Your task to perform on an android device: What's on my calendar tomorrow? Image 0: 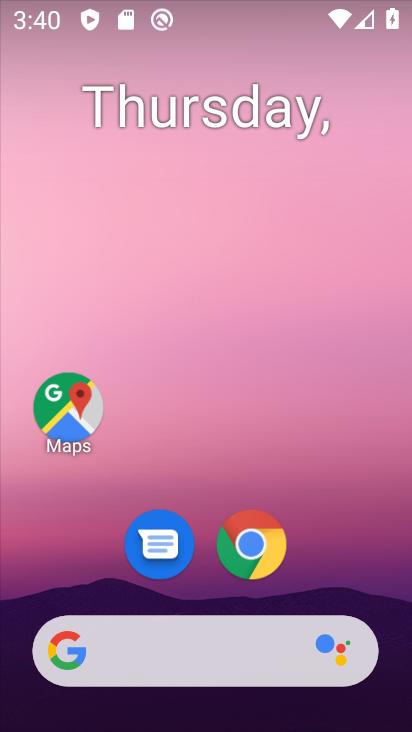
Step 0: click (371, 407)
Your task to perform on an android device: What's on my calendar tomorrow? Image 1: 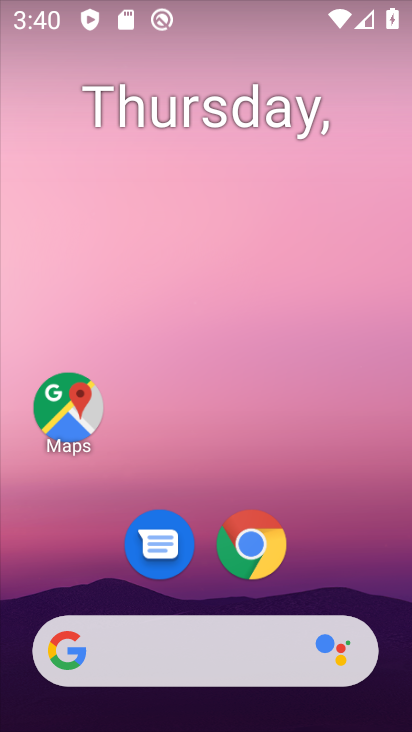
Step 1: drag from (364, 586) to (66, 2)
Your task to perform on an android device: What's on my calendar tomorrow? Image 2: 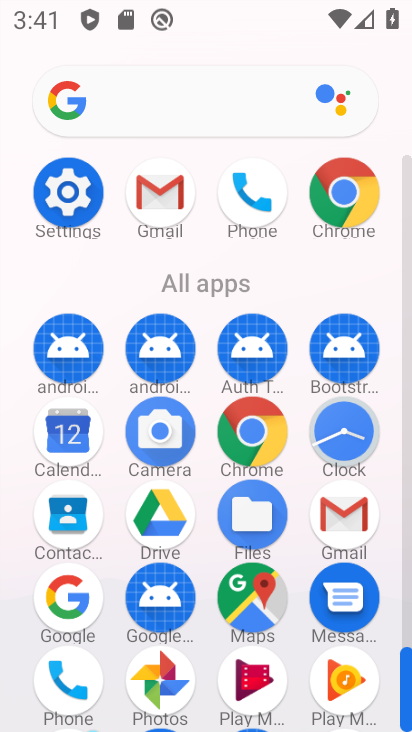
Step 2: click (70, 445)
Your task to perform on an android device: What's on my calendar tomorrow? Image 3: 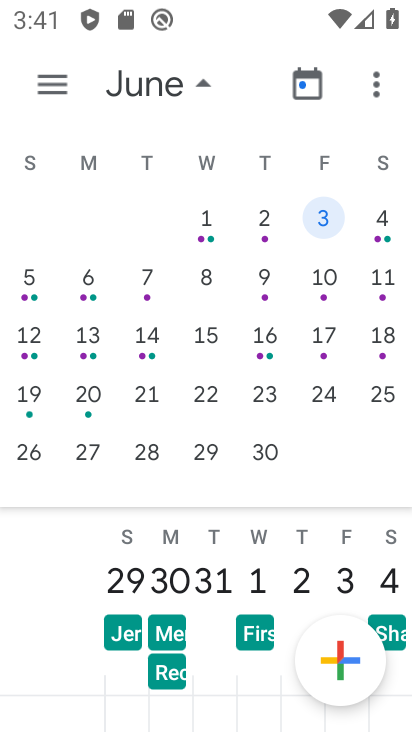
Step 3: click (69, 81)
Your task to perform on an android device: What's on my calendar tomorrow? Image 4: 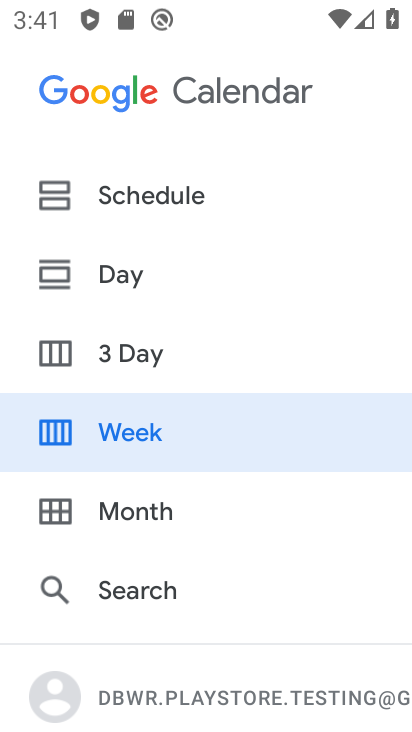
Step 4: click (156, 343)
Your task to perform on an android device: What's on my calendar tomorrow? Image 5: 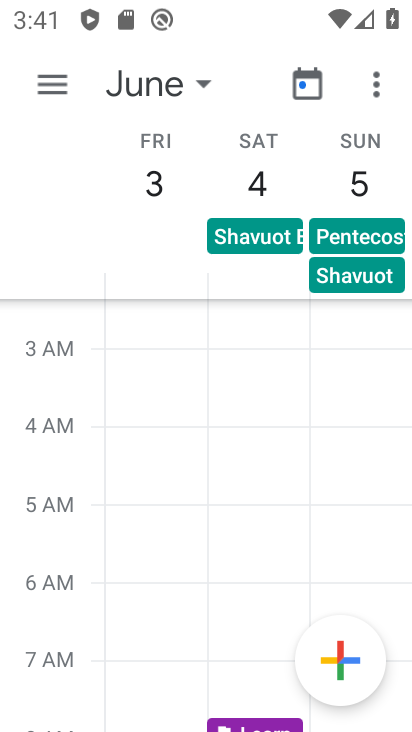
Step 5: drag from (115, 175) to (386, 182)
Your task to perform on an android device: What's on my calendar tomorrow? Image 6: 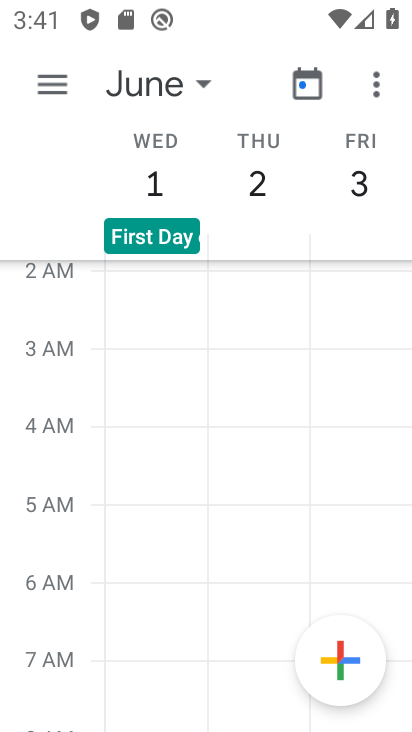
Step 6: click (144, 81)
Your task to perform on an android device: What's on my calendar tomorrow? Image 7: 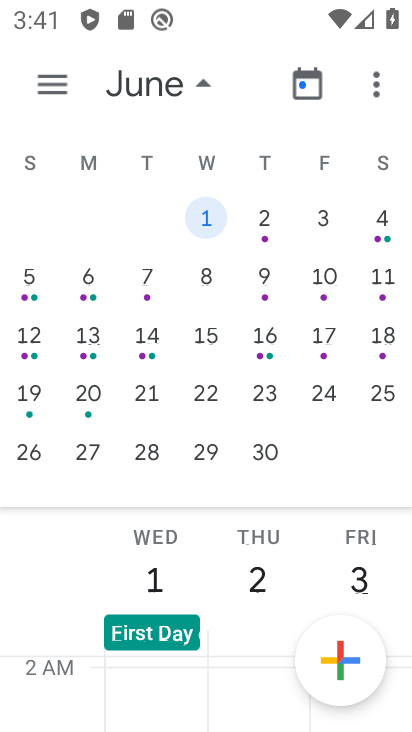
Step 7: drag from (183, 231) to (361, 278)
Your task to perform on an android device: What's on my calendar tomorrow? Image 8: 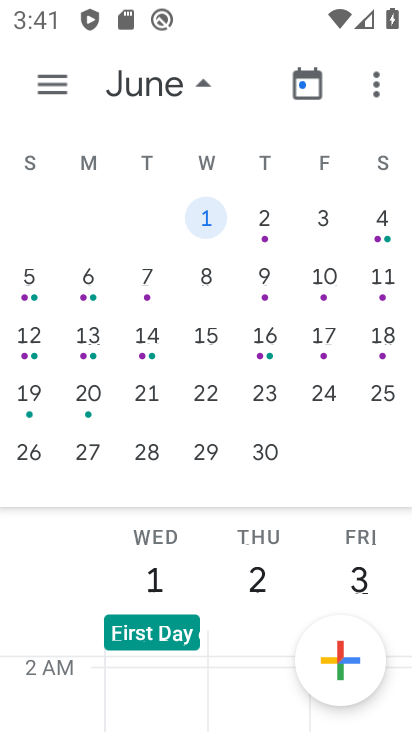
Step 8: click (87, 336)
Your task to perform on an android device: What's on my calendar tomorrow? Image 9: 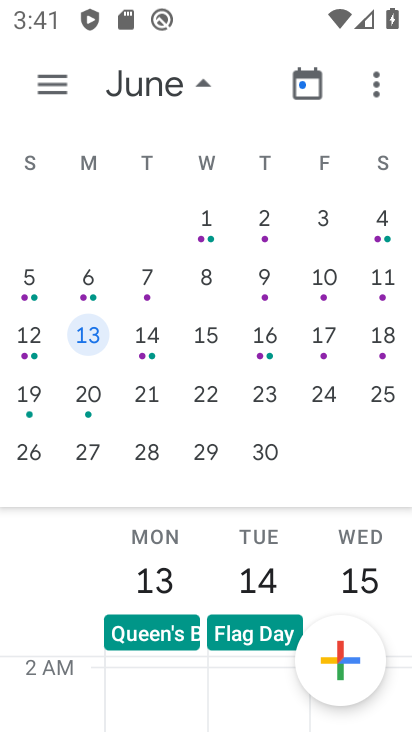
Step 9: drag from (102, 178) to (400, 243)
Your task to perform on an android device: What's on my calendar tomorrow? Image 10: 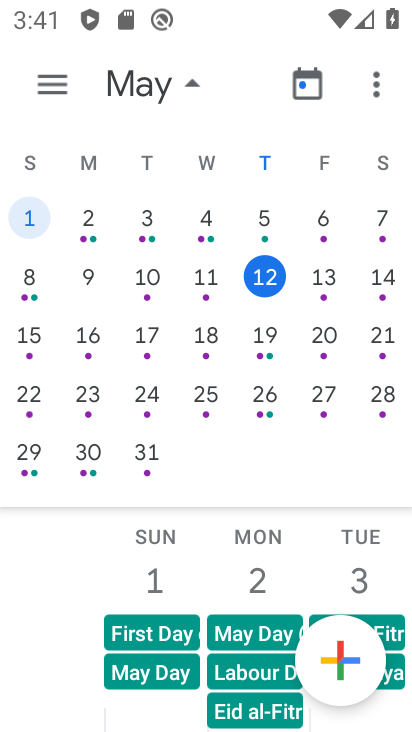
Step 10: click (333, 269)
Your task to perform on an android device: What's on my calendar tomorrow? Image 11: 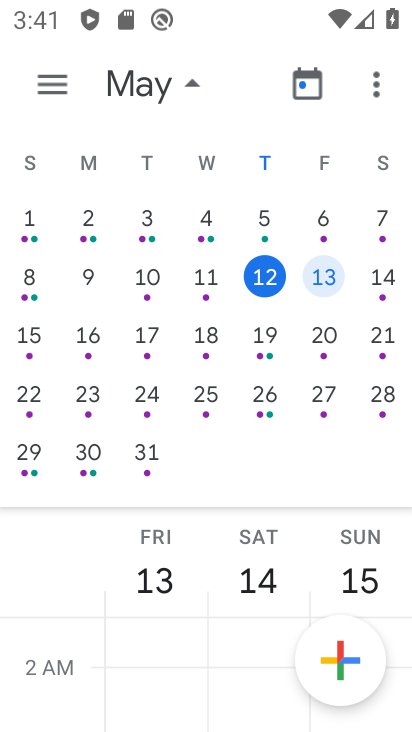
Step 11: click (57, 65)
Your task to perform on an android device: What's on my calendar tomorrow? Image 12: 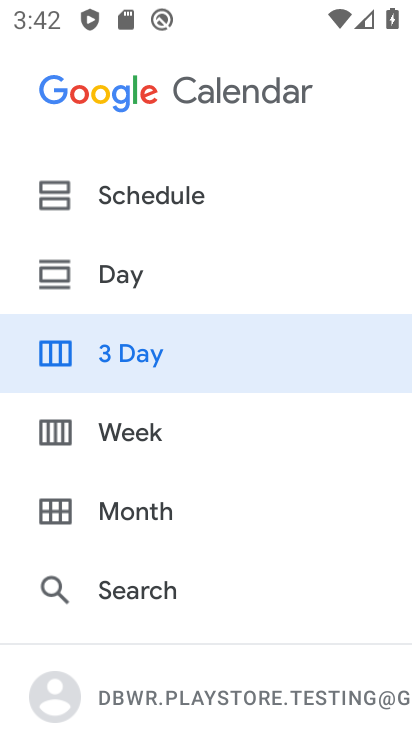
Step 12: click (141, 207)
Your task to perform on an android device: What's on my calendar tomorrow? Image 13: 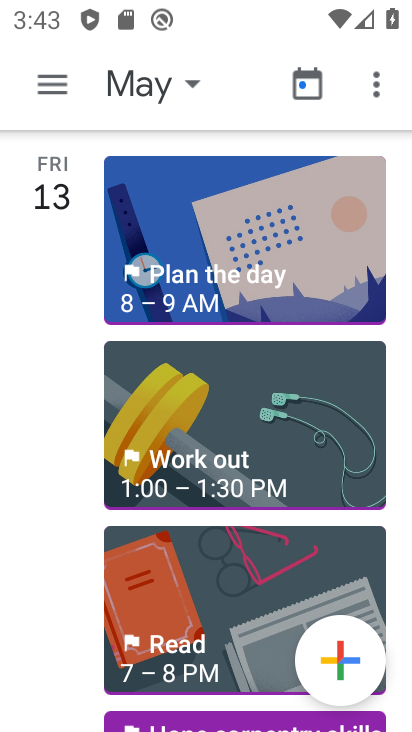
Step 13: task complete